Your task to perform on an android device: open app "Clock" Image 0: 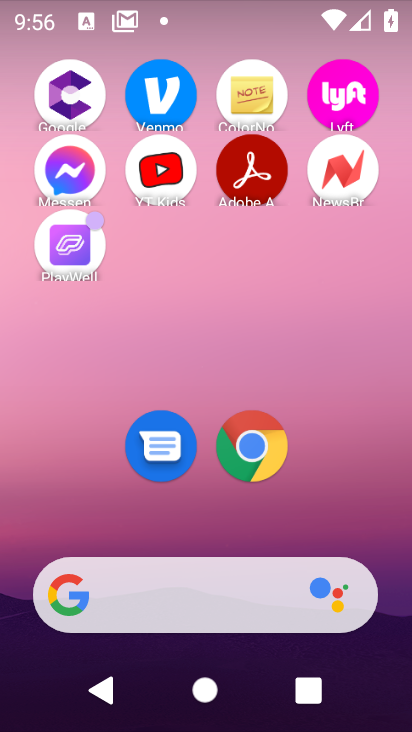
Step 0: drag from (202, 506) to (298, 4)
Your task to perform on an android device: open app "Clock" Image 1: 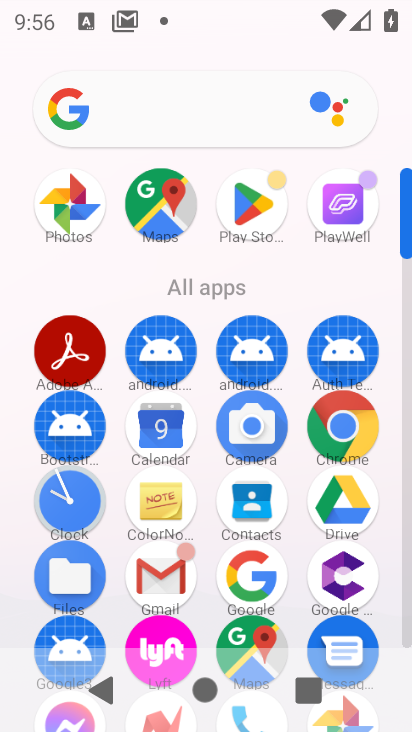
Step 1: click (93, 492)
Your task to perform on an android device: open app "Clock" Image 2: 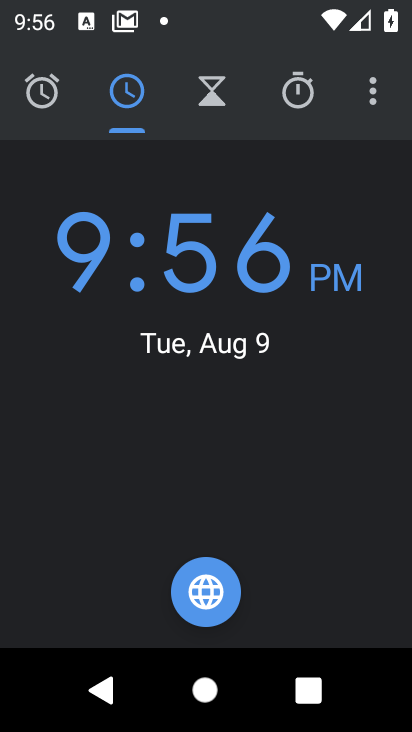
Step 2: task complete